Your task to perform on an android device: find which apps use the phone's location Image 0: 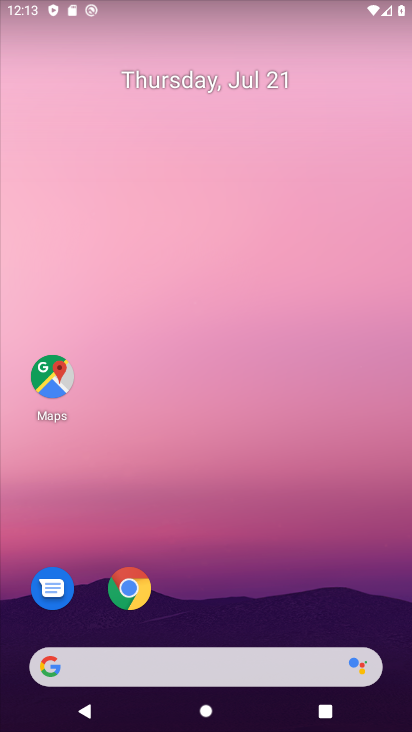
Step 0: drag from (284, 503) to (250, 159)
Your task to perform on an android device: find which apps use the phone's location Image 1: 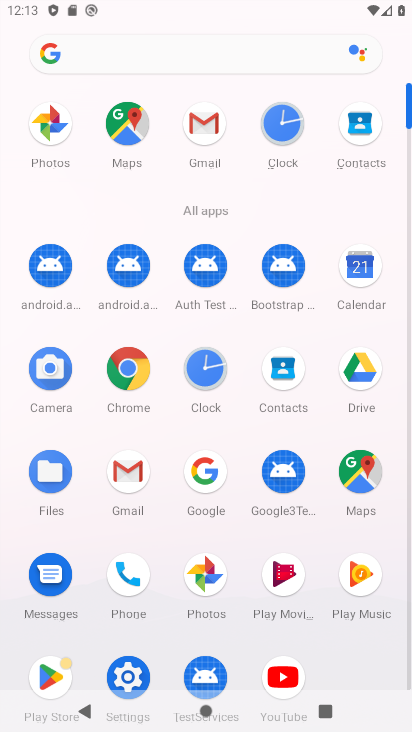
Step 1: click (129, 675)
Your task to perform on an android device: find which apps use the phone's location Image 2: 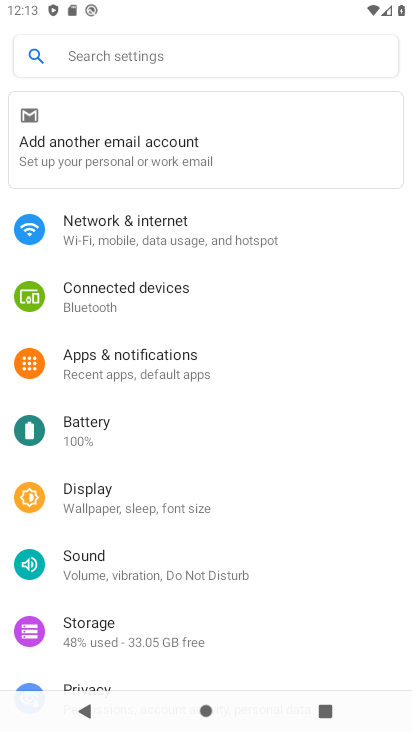
Step 2: task complete